Your task to perform on an android device: Go to network settings Image 0: 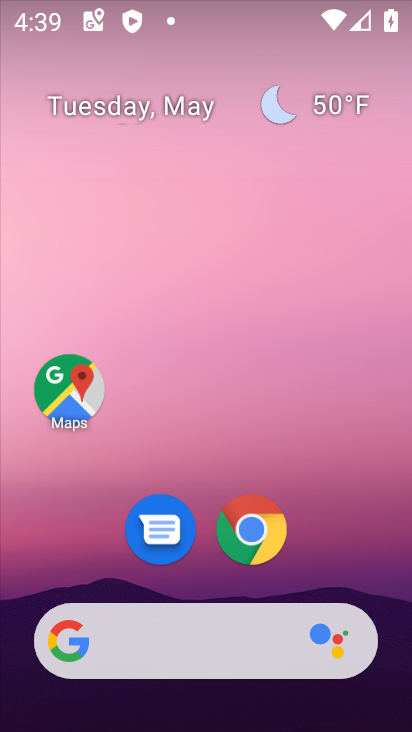
Step 0: drag from (326, 448) to (173, 17)
Your task to perform on an android device: Go to network settings Image 1: 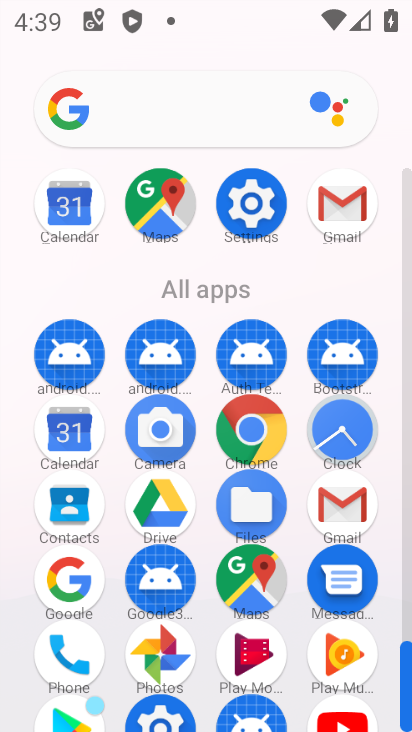
Step 1: drag from (19, 523) to (20, 242)
Your task to perform on an android device: Go to network settings Image 2: 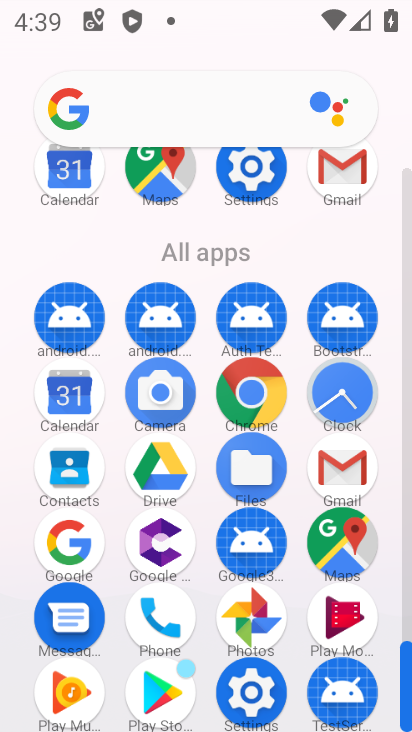
Step 2: click (251, 691)
Your task to perform on an android device: Go to network settings Image 3: 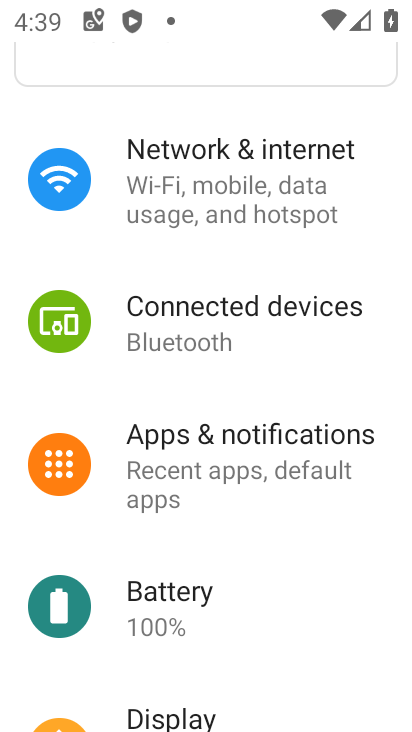
Step 3: click (235, 184)
Your task to perform on an android device: Go to network settings Image 4: 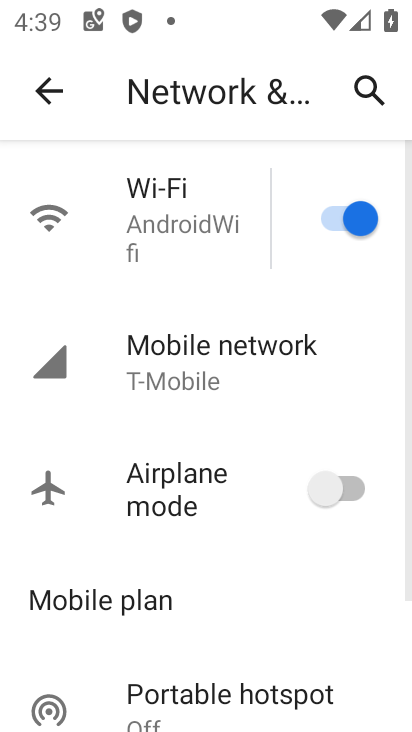
Step 4: drag from (184, 563) to (165, 166)
Your task to perform on an android device: Go to network settings Image 5: 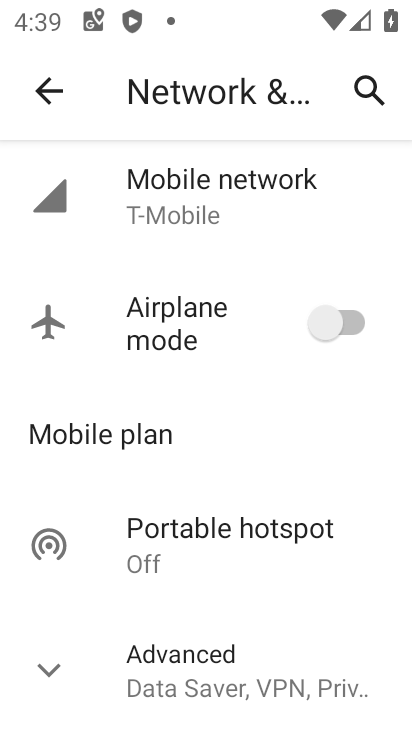
Step 5: click (54, 663)
Your task to perform on an android device: Go to network settings Image 6: 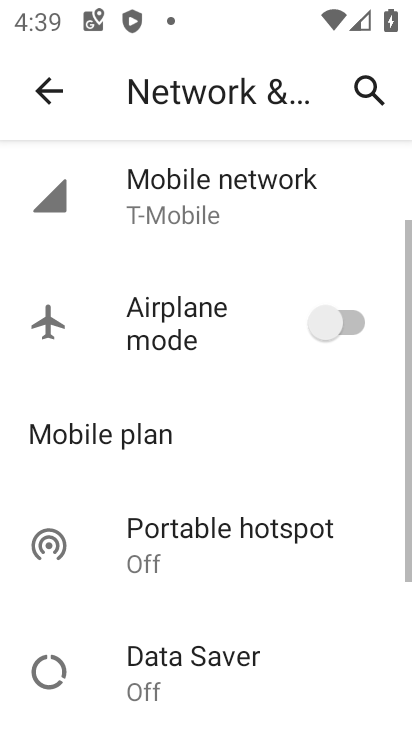
Step 6: task complete